Your task to perform on an android device: Open network settings Image 0: 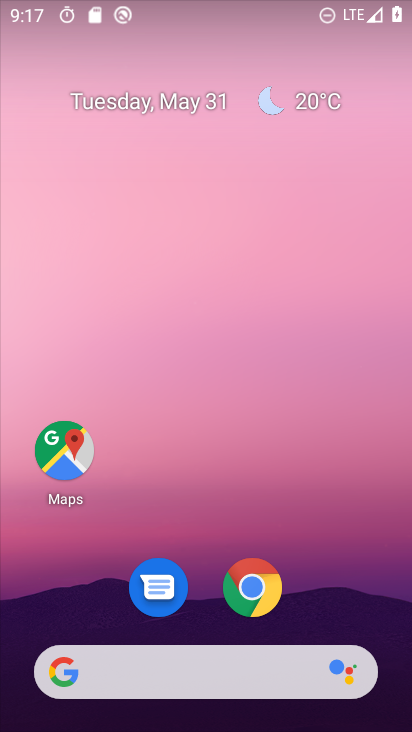
Step 0: drag from (238, 5) to (275, 512)
Your task to perform on an android device: Open network settings Image 1: 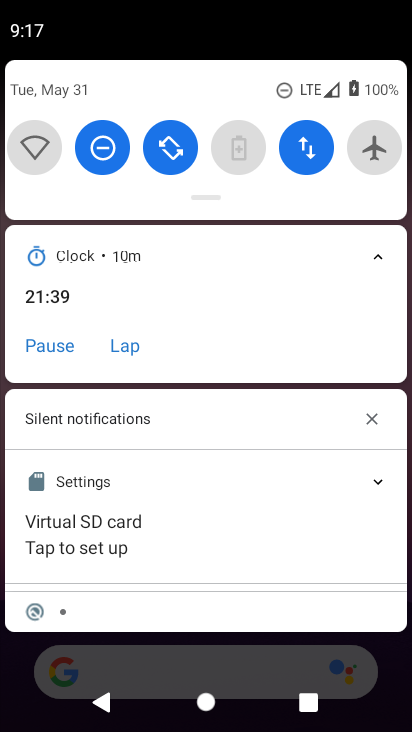
Step 1: click (299, 148)
Your task to perform on an android device: Open network settings Image 2: 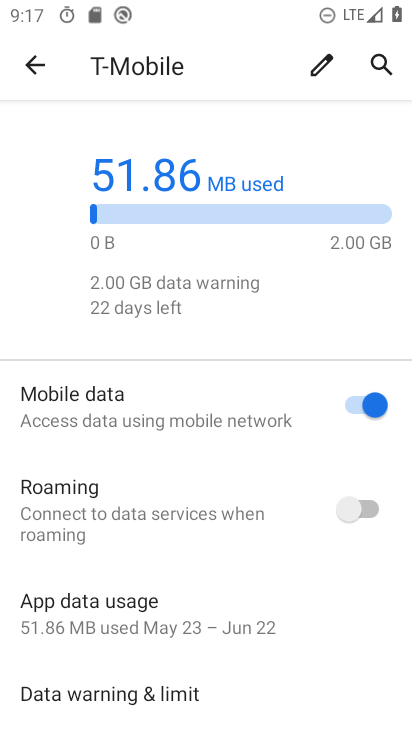
Step 2: task complete